Your task to perform on an android device: Open Google Chrome and click the shortcut for Amazon.com Image 0: 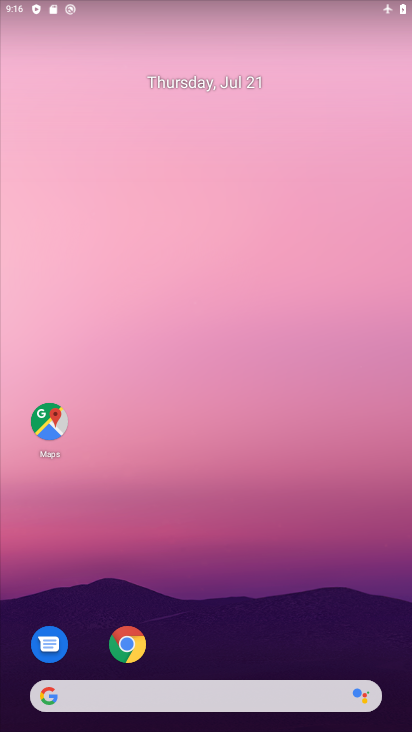
Step 0: click (127, 640)
Your task to perform on an android device: Open Google Chrome and click the shortcut for Amazon.com Image 1: 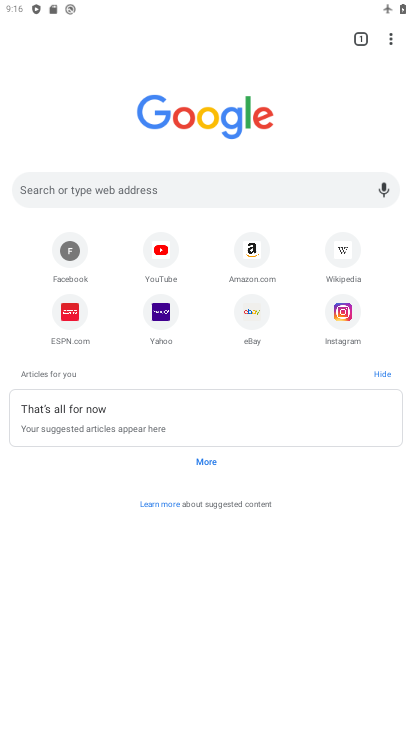
Step 1: click (388, 36)
Your task to perform on an android device: Open Google Chrome and click the shortcut for Amazon.com Image 2: 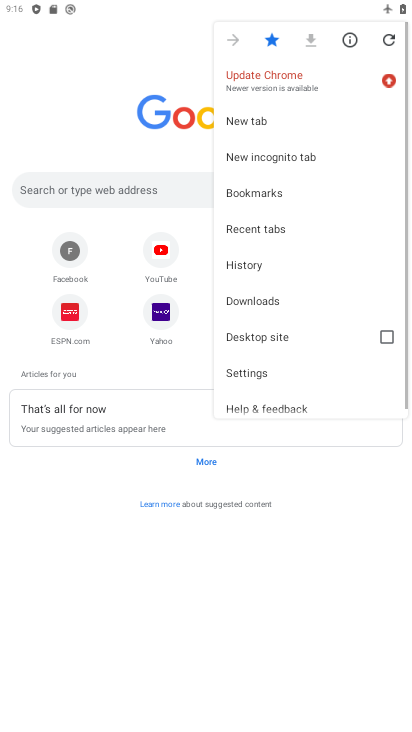
Step 2: click (166, 58)
Your task to perform on an android device: Open Google Chrome and click the shortcut for Amazon.com Image 3: 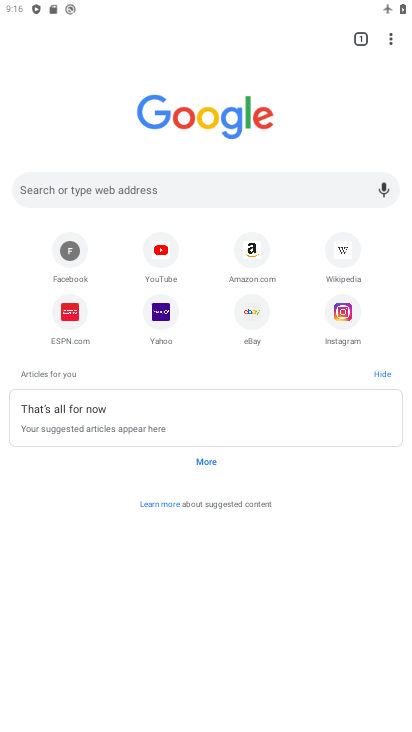
Step 3: click (250, 249)
Your task to perform on an android device: Open Google Chrome and click the shortcut for Amazon.com Image 4: 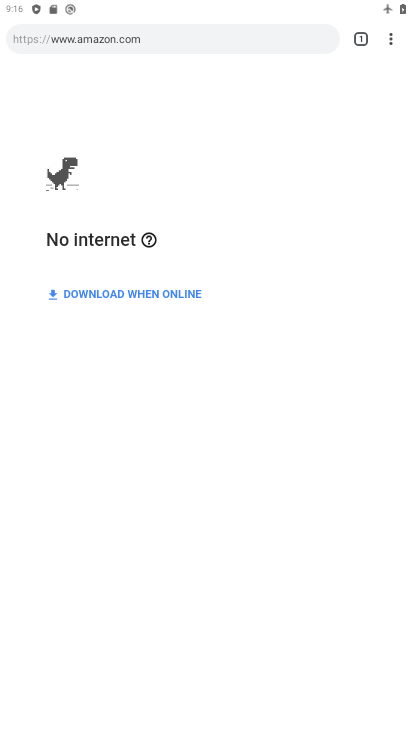
Step 4: task complete